Your task to perform on an android device: clear history in the chrome app Image 0: 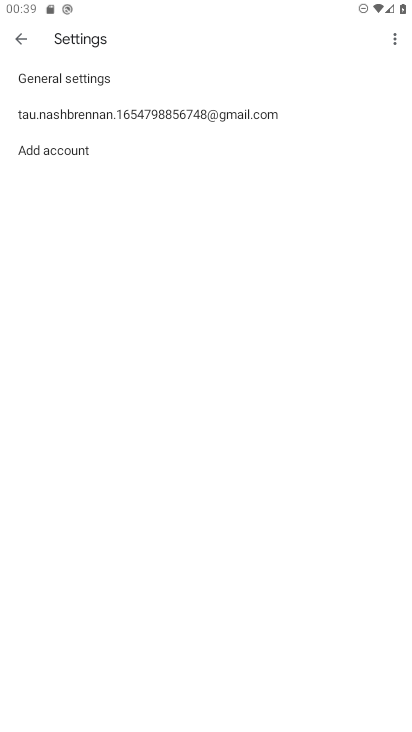
Step 0: press home button
Your task to perform on an android device: clear history in the chrome app Image 1: 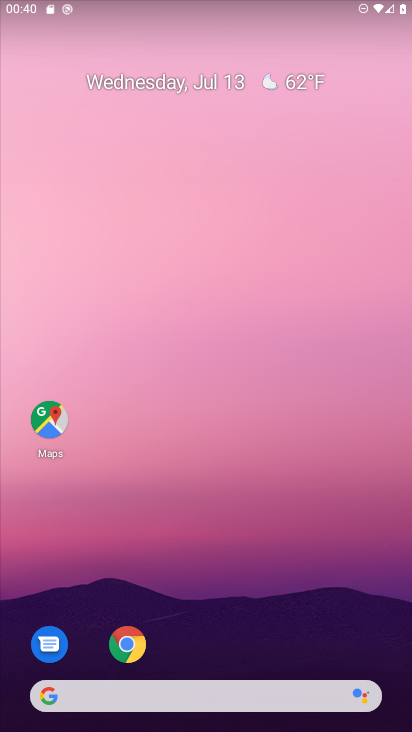
Step 1: drag from (191, 655) to (160, 195)
Your task to perform on an android device: clear history in the chrome app Image 2: 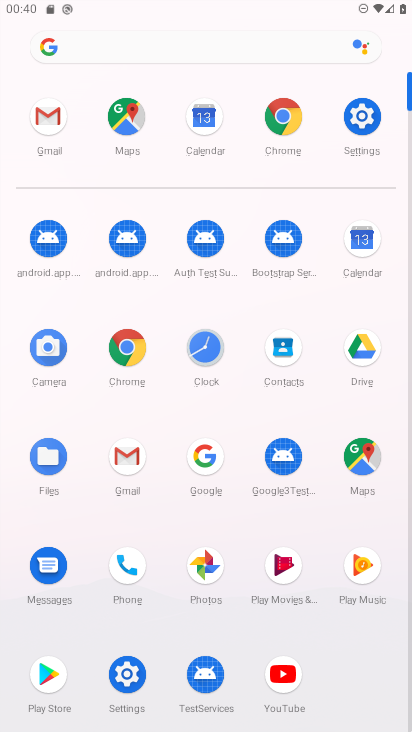
Step 2: click (289, 131)
Your task to perform on an android device: clear history in the chrome app Image 3: 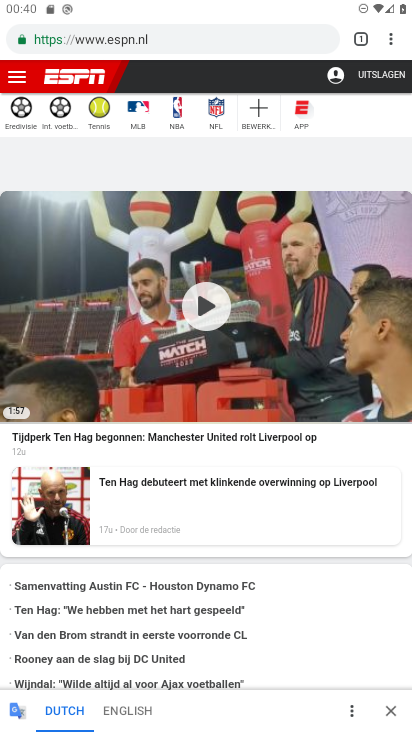
Step 3: click (387, 39)
Your task to perform on an android device: clear history in the chrome app Image 4: 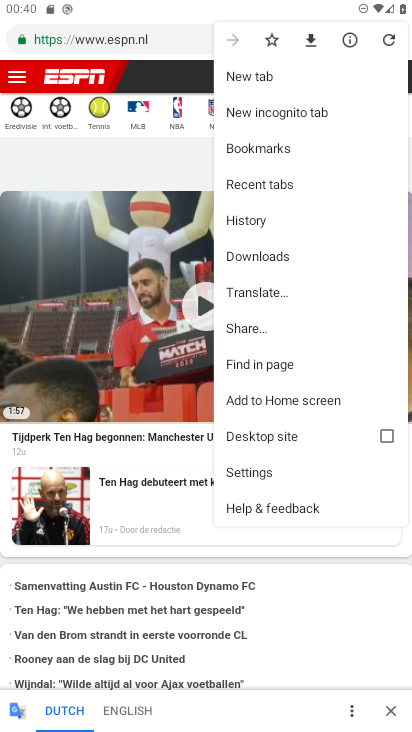
Step 4: click (271, 224)
Your task to perform on an android device: clear history in the chrome app Image 5: 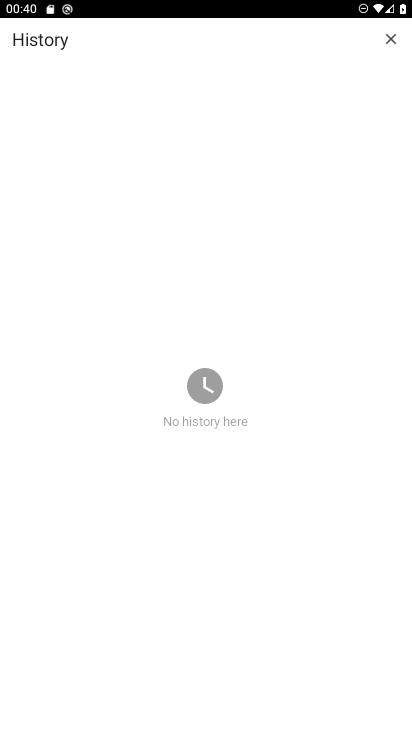
Step 5: task complete